Your task to perform on an android device: check battery use Image 0: 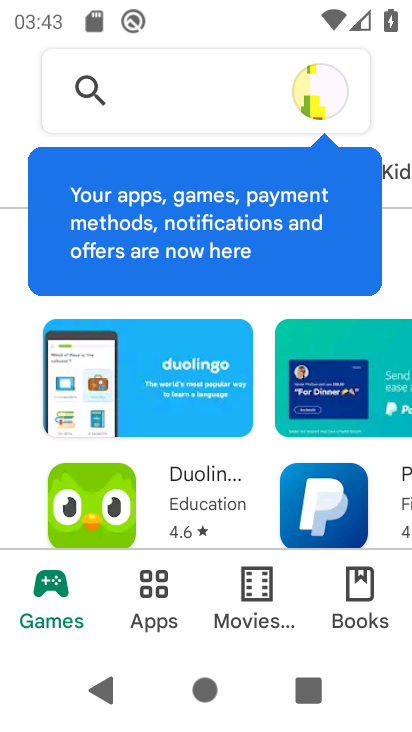
Step 0: press home button
Your task to perform on an android device: check battery use Image 1: 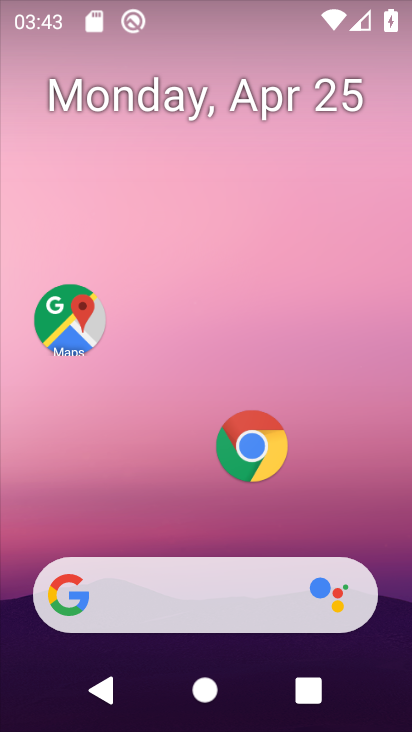
Step 1: drag from (121, 533) to (241, 86)
Your task to perform on an android device: check battery use Image 2: 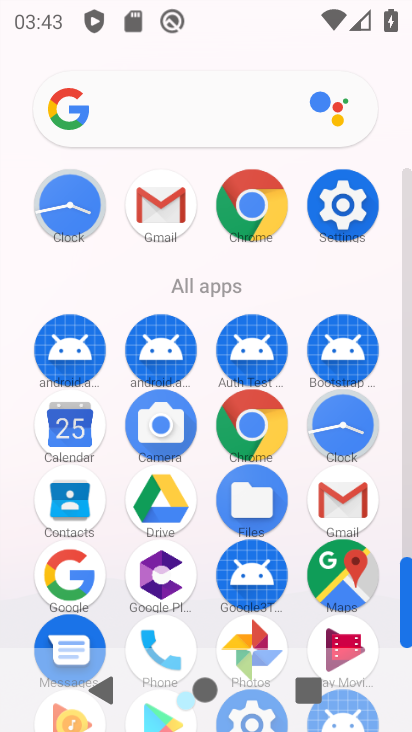
Step 2: click (352, 206)
Your task to perform on an android device: check battery use Image 3: 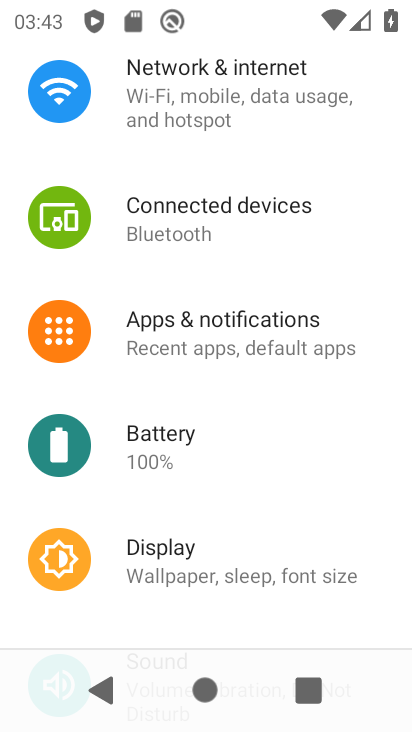
Step 3: click (151, 460)
Your task to perform on an android device: check battery use Image 4: 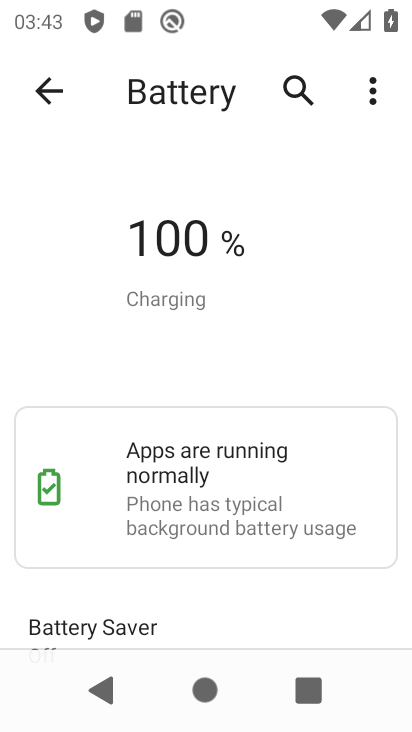
Step 4: click (354, 86)
Your task to perform on an android device: check battery use Image 5: 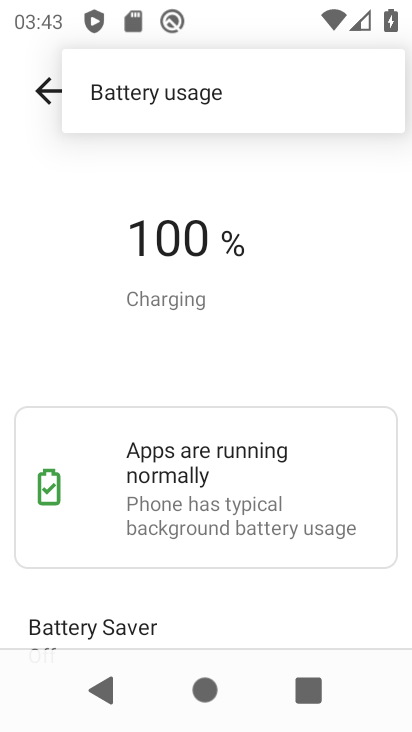
Step 5: click (314, 88)
Your task to perform on an android device: check battery use Image 6: 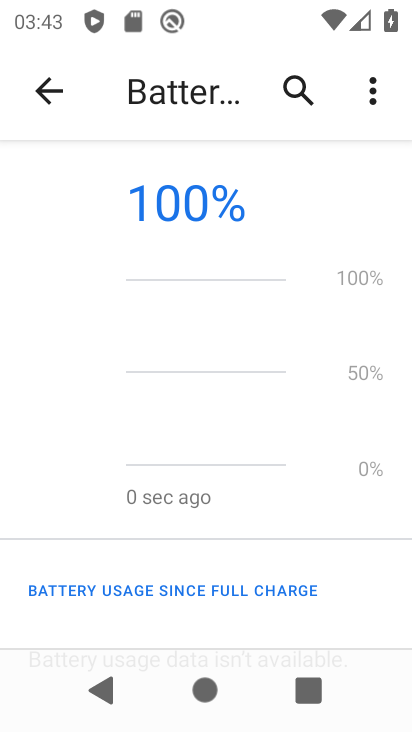
Step 6: task complete